Your task to perform on an android device: Search for sushi restaurants on Maps Image 0: 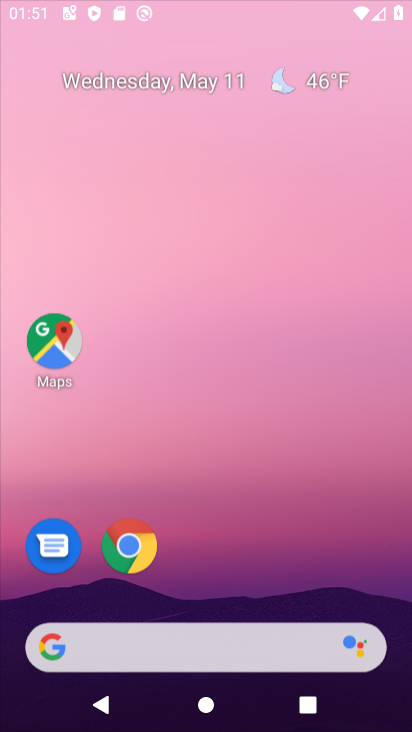
Step 0: click (267, 331)
Your task to perform on an android device: Search for sushi restaurants on Maps Image 1: 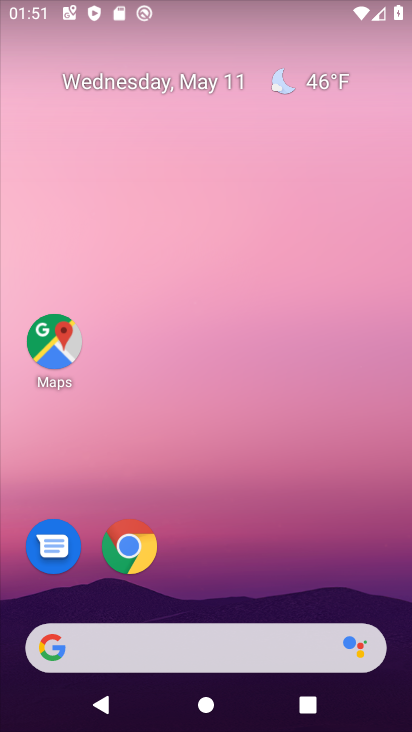
Step 1: drag from (187, 627) to (289, 219)
Your task to perform on an android device: Search for sushi restaurants on Maps Image 2: 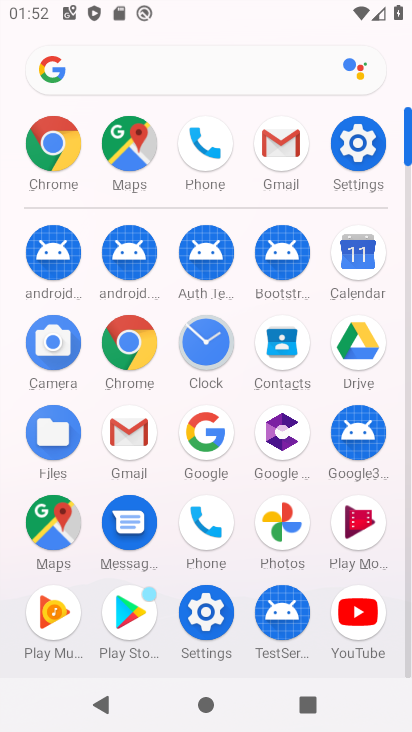
Step 2: click (45, 525)
Your task to perform on an android device: Search for sushi restaurants on Maps Image 3: 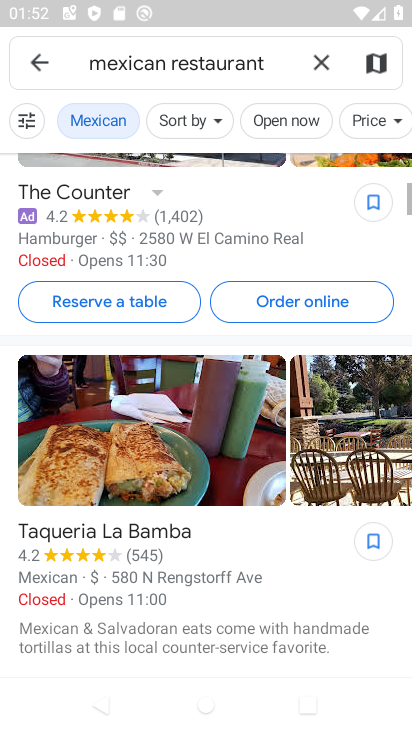
Step 3: click (323, 62)
Your task to perform on an android device: Search for sushi restaurants on Maps Image 4: 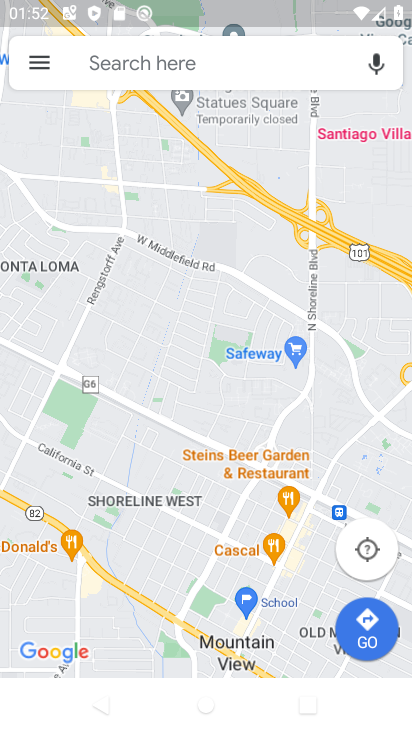
Step 4: click (135, 73)
Your task to perform on an android device: Search for sushi restaurants on Maps Image 5: 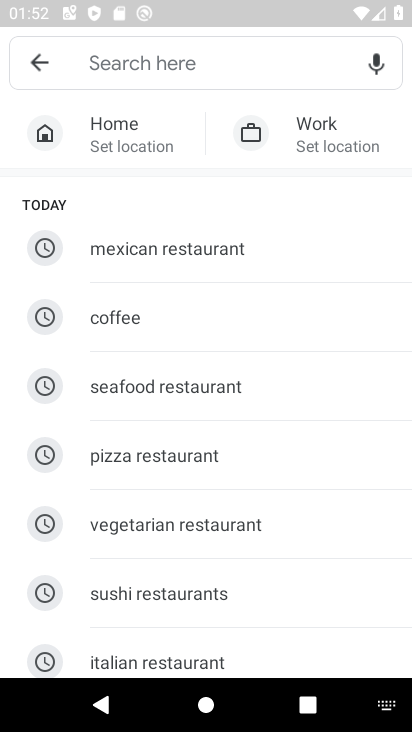
Step 5: drag from (167, 560) to (224, 265)
Your task to perform on an android device: Search for sushi restaurants on Maps Image 6: 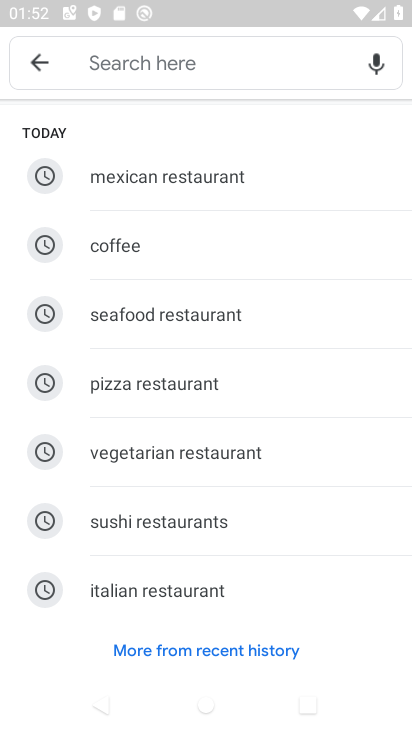
Step 6: click (142, 522)
Your task to perform on an android device: Search for sushi restaurants on Maps Image 7: 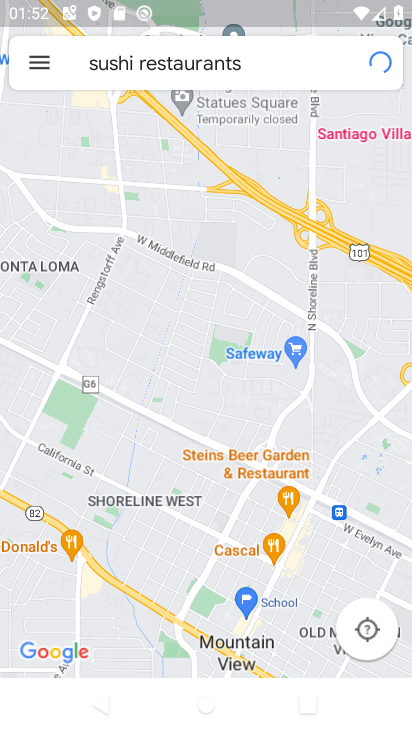
Step 7: task complete